Your task to perform on an android device: toggle translation in the chrome app Image 0: 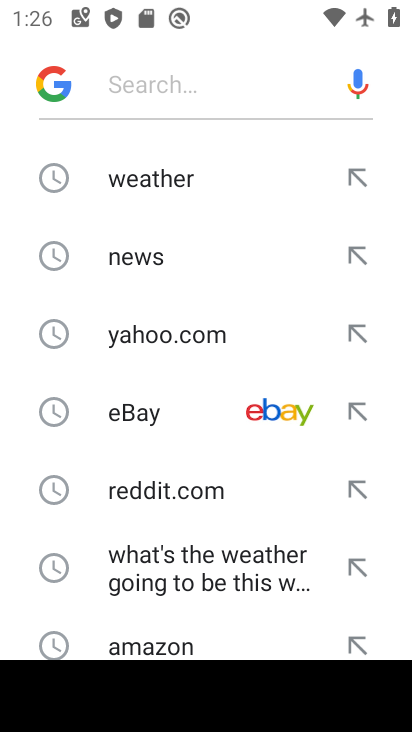
Step 0: press home button
Your task to perform on an android device: toggle translation in the chrome app Image 1: 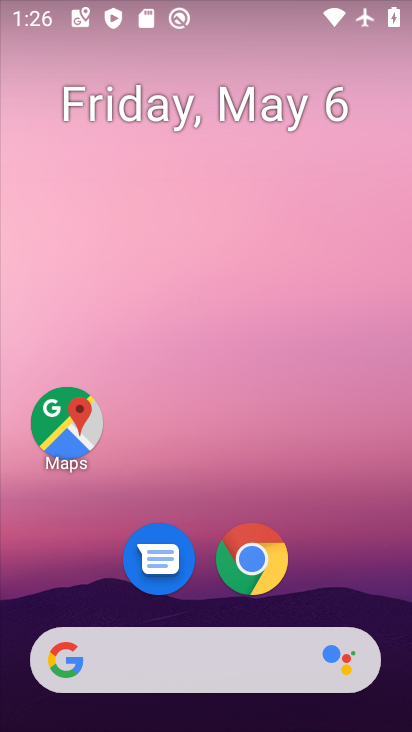
Step 1: click (250, 573)
Your task to perform on an android device: toggle translation in the chrome app Image 2: 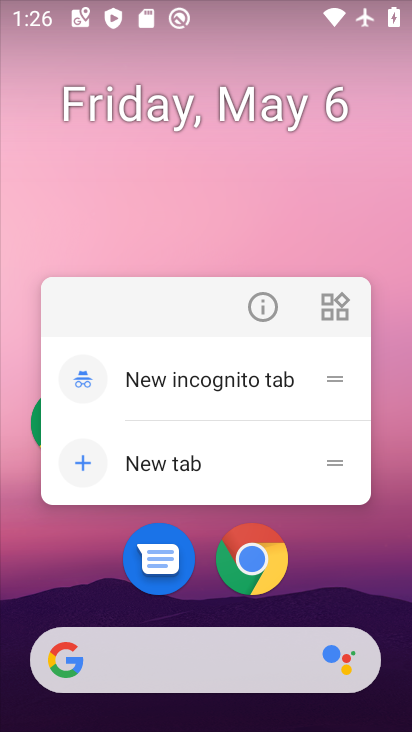
Step 2: click (257, 560)
Your task to perform on an android device: toggle translation in the chrome app Image 3: 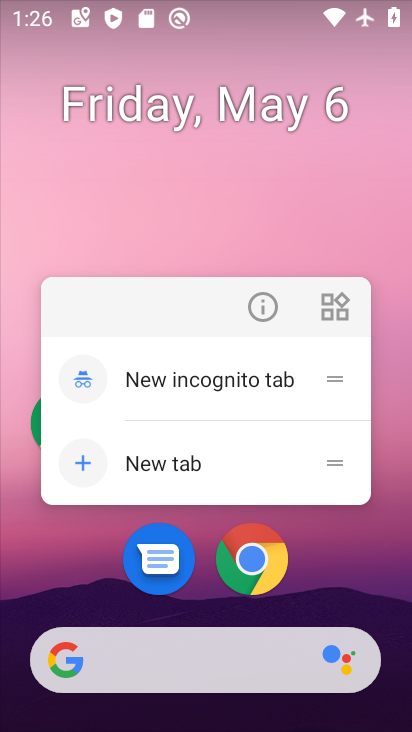
Step 3: click (252, 569)
Your task to perform on an android device: toggle translation in the chrome app Image 4: 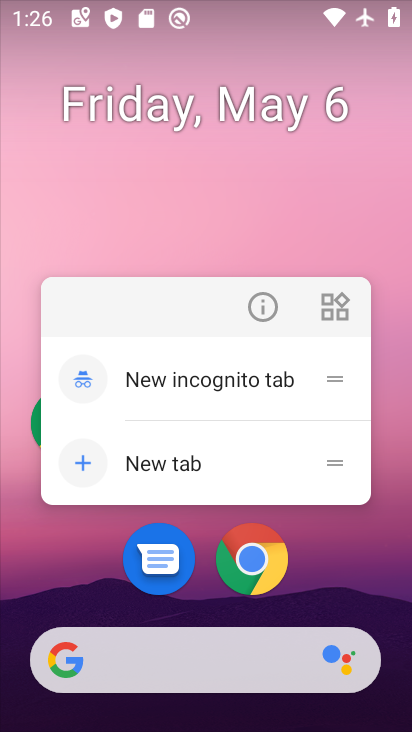
Step 4: click (249, 576)
Your task to perform on an android device: toggle translation in the chrome app Image 5: 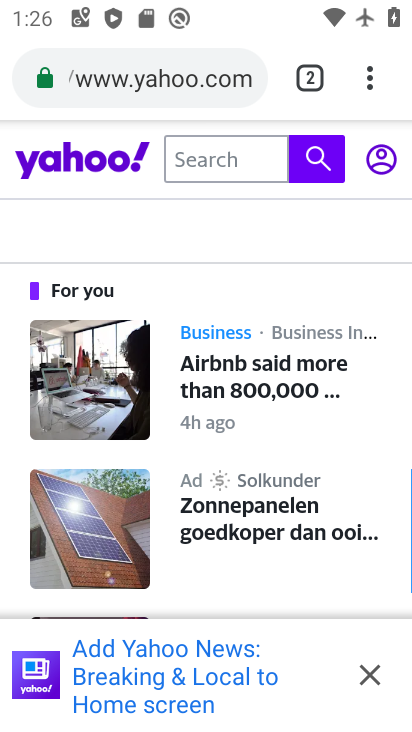
Step 5: drag from (372, 81) to (130, 619)
Your task to perform on an android device: toggle translation in the chrome app Image 6: 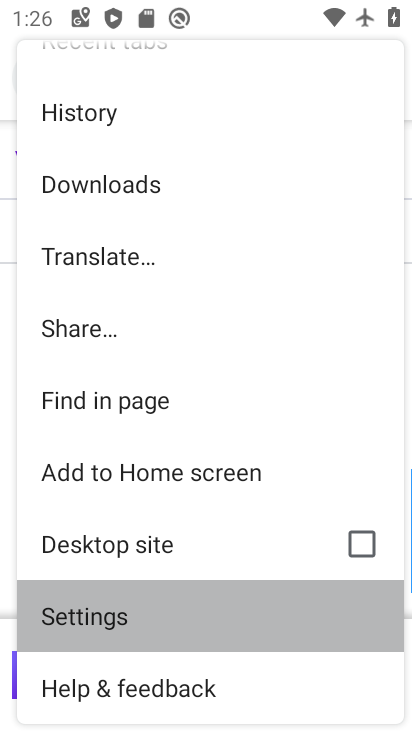
Step 6: click (130, 615)
Your task to perform on an android device: toggle translation in the chrome app Image 7: 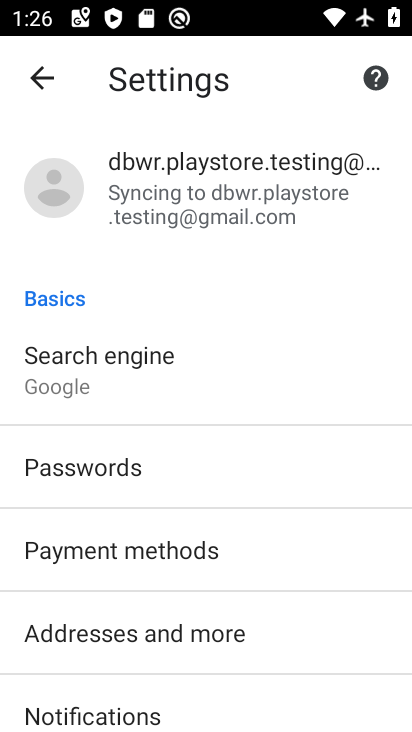
Step 7: drag from (120, 641) to (320, 183)
Your task to perform on an android device: toggle translation in the chrome app Image 8: 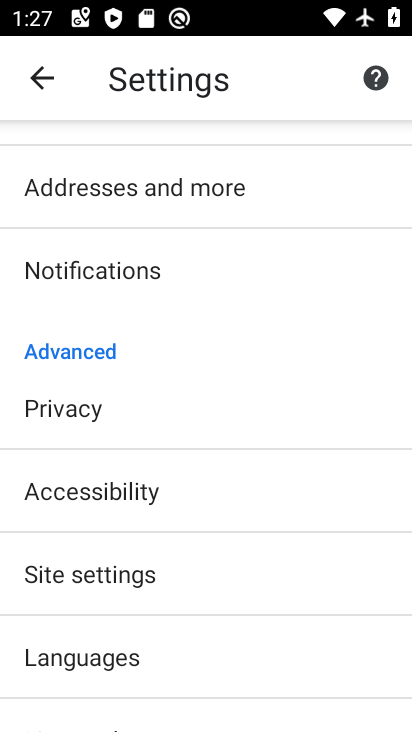
Step 8: click (124, 659)
Your task to perform on an android device: toggle translation in the chrome app Image 9: 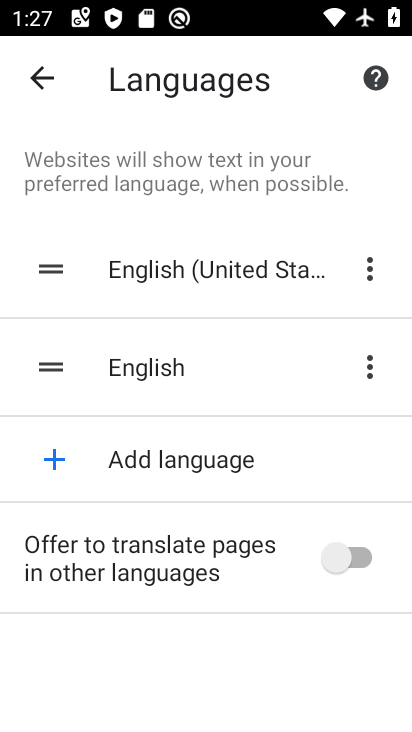
Step 9: click (355, 555)
Your task to perform on an android device: toggle translation in the chrome app Image 10: 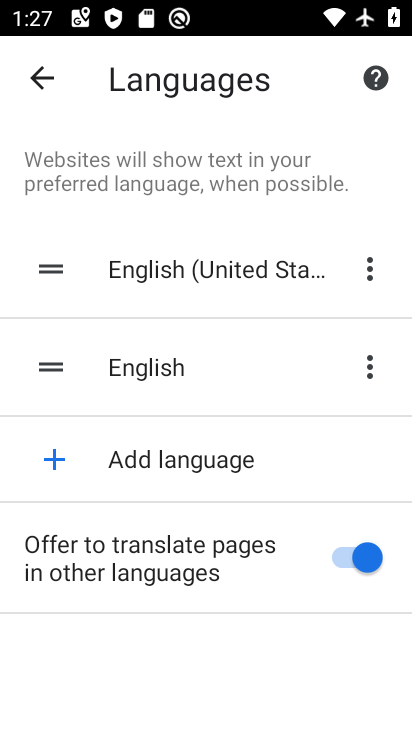
Step 10: task complete